Your task to perform on an android device: change your default location settings in chrome Image 0: 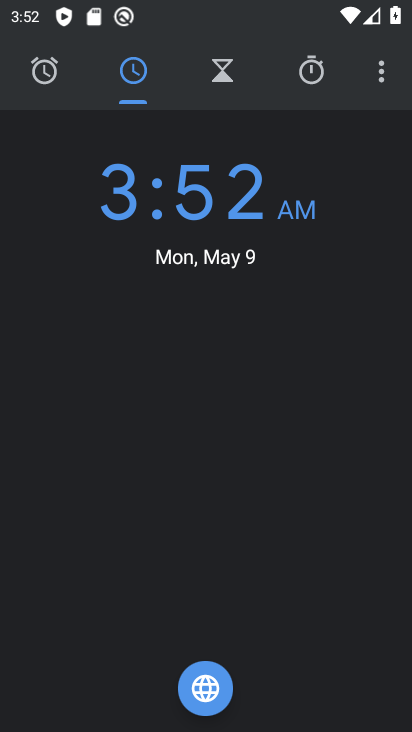
Step 0: press home button
Your task to perform on an android device: change your default location settings in chrome Image 1: 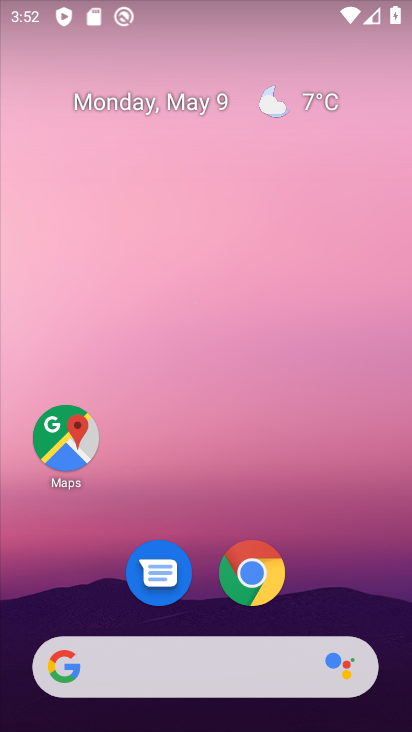
Step 1: drag from (333, 602) to (275, 228)
Your task to perform on an android device: change your default location settings in chrome Image 2: 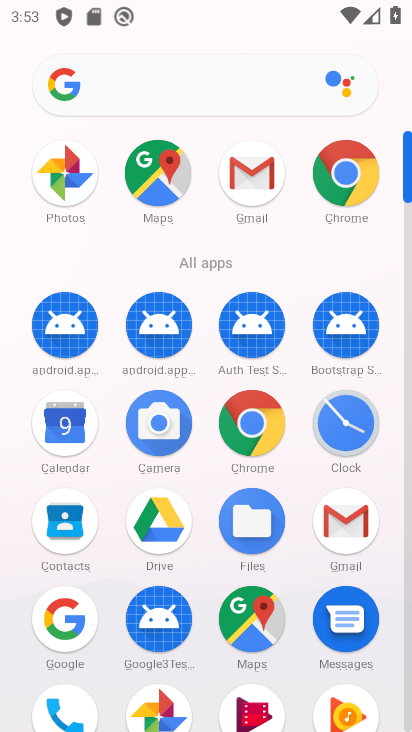
Step 2: click (334, 190)
Your task to perform on an android device: change your default location settings in chrome Image 3: 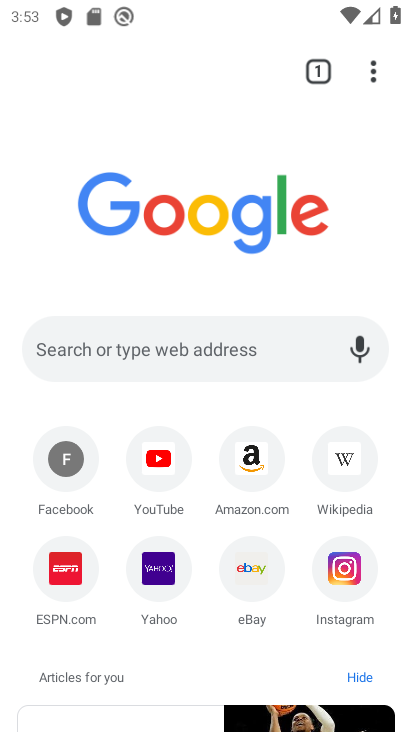
Step 3: click (366, 78)
Your task to perform on an android device: change your default location settings in chrome Image 4: 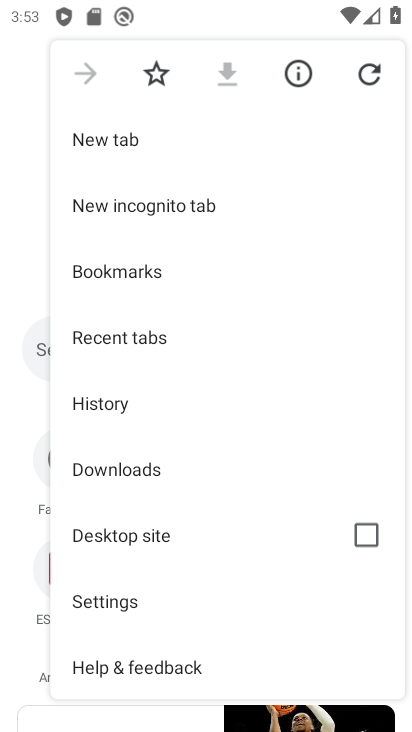
Step 4: click (142, 593)
Your task to perform on an android device: change your default location settings in chrome Image 5: 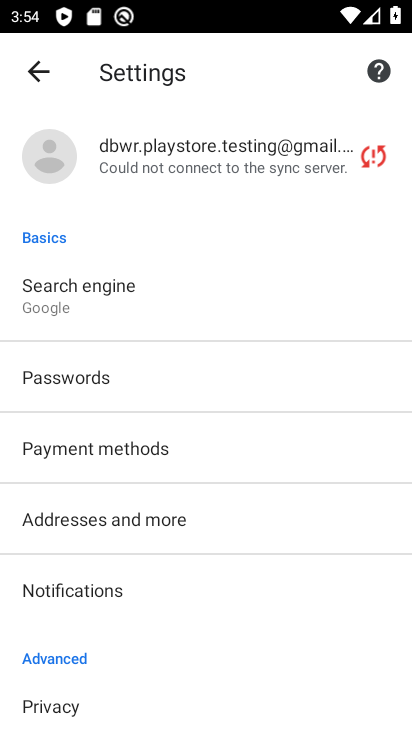
Step 5: drag from (157, 652) to (140, 361)
Your task to perform on an android device: change your default location settings in chrome Image 6: 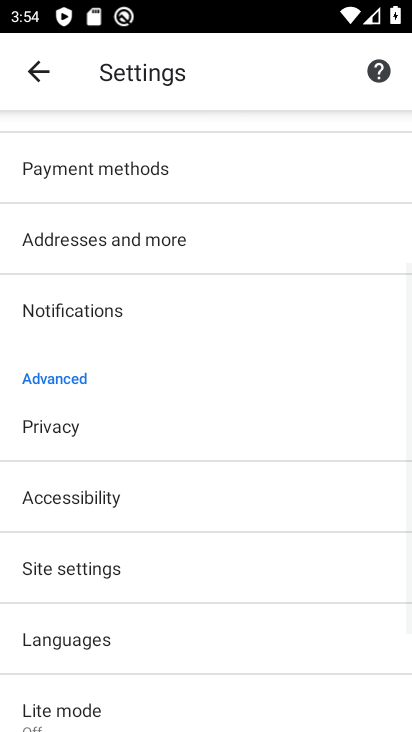
Step 6: click (128, 566)
Your task to perform on an android device: change your default location settings in chrome Image 7: 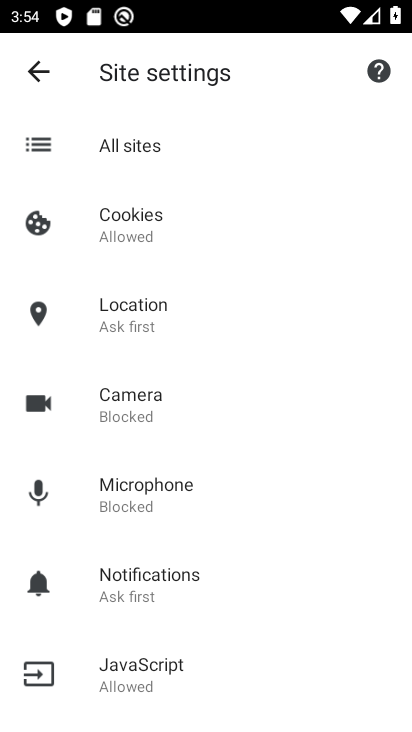
Step 7: drag from (154, 573) to (155, 455)
Your task to perform on an android device: change your default location settings in chrome Image 8: 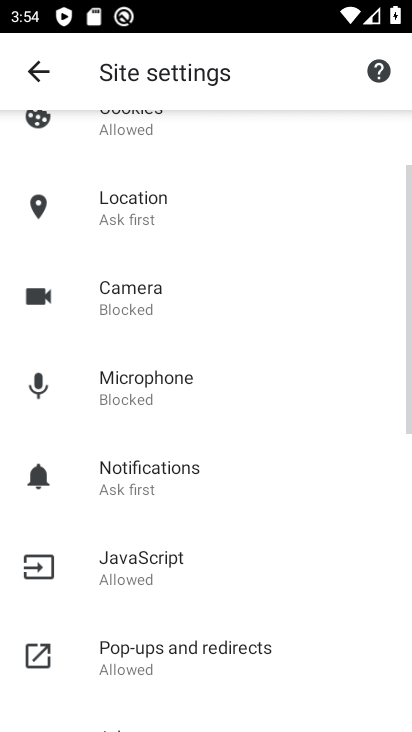
Step 8: click (127, 217)
Your task to perform on an android device: change your default location settings in chrome Image 9: 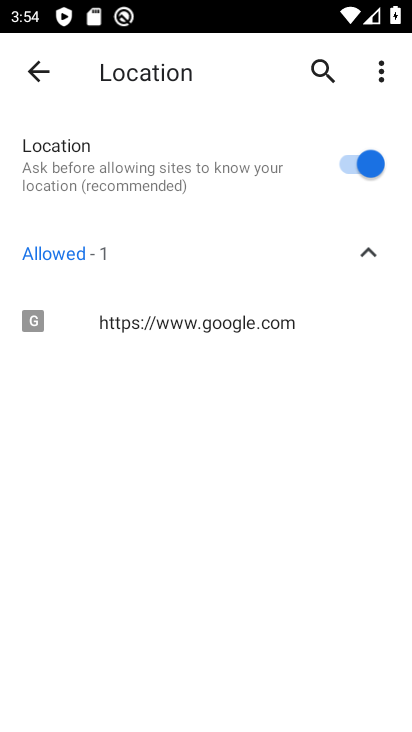
Step 9: click (363, 142)
Your task to perform on an android device: change your default location settings in chrome Image 10: 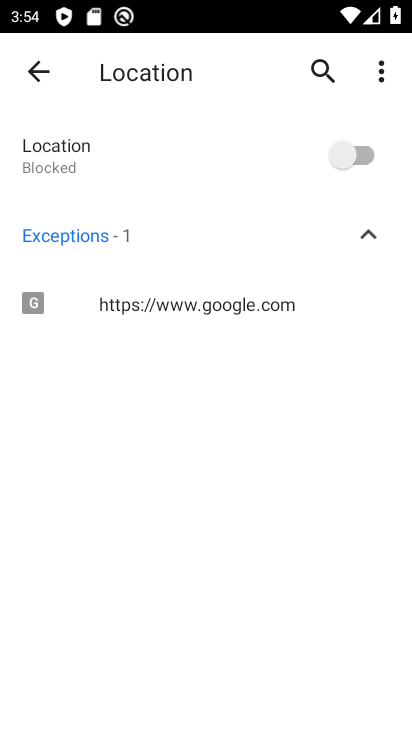
Step 10: task complete